Your task to perform on an android device: Go to ESPN.com Image 0: 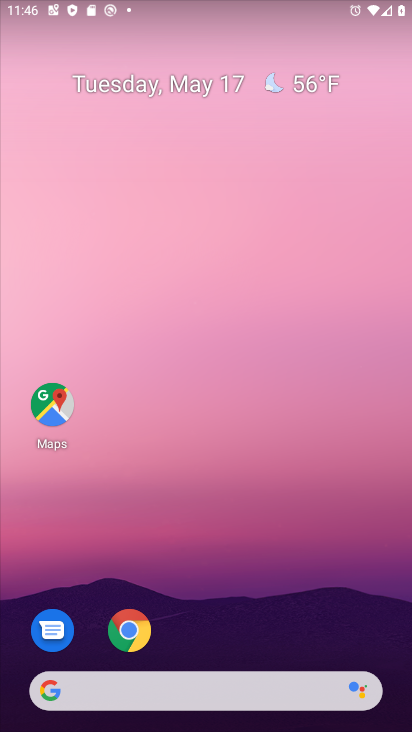
Step 0: drag from (369, 628) to (344, 206)
Your task to perform on an android device: Go to ESPN.com Image 1: 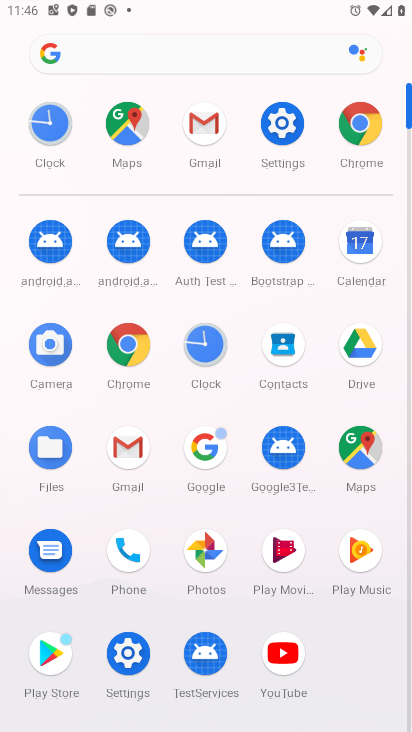
Step 1: click (144, 343)
Your task to perform on an android device: Go to ESPN.com Image 2: 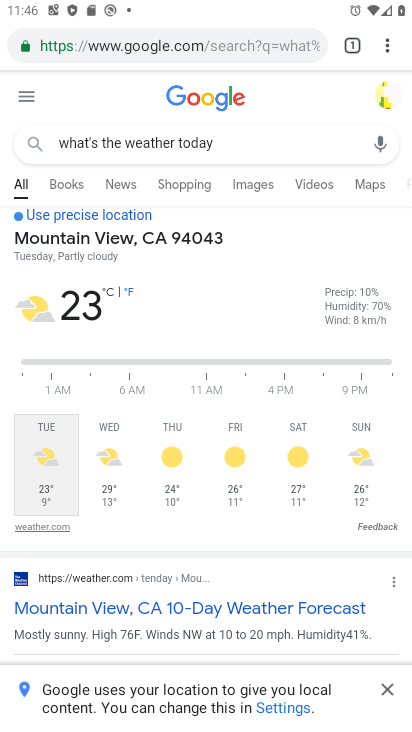
Step 2: click (171, 47)
Your task to perform on an android device: Go to ESPN.com Image 3: 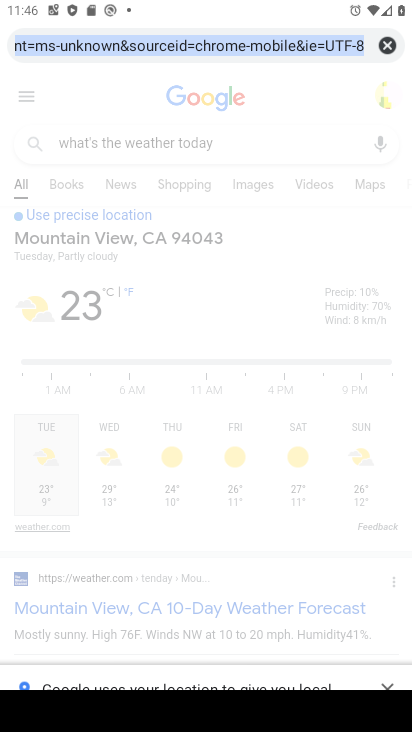
Step 3: click (388, 43)
Your task to perform on an android device: Go to ESPN.com Image 4: 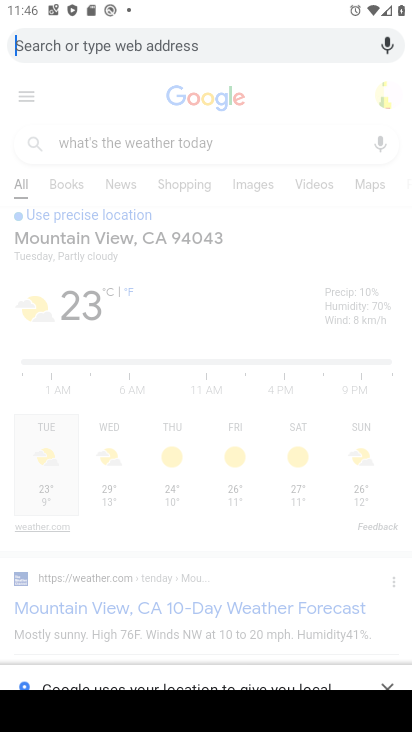
Step 4: type "espn.com"
Your task to perform on an android device: Go to ESPN.com Image 5: 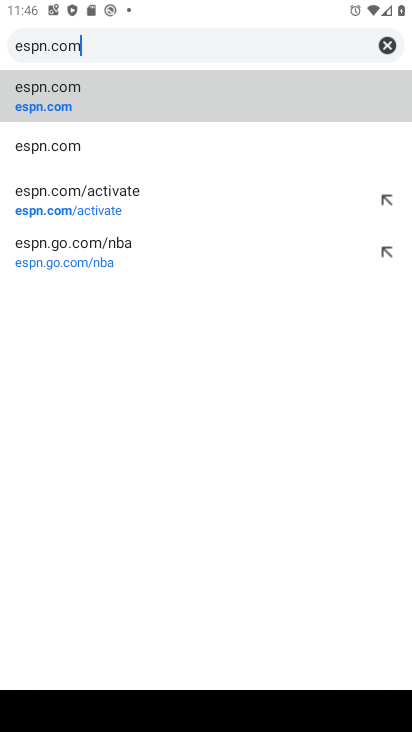
Step 5: click (20, 90)
Your task to perform on an android device: Go to ESPN.com Image 6: 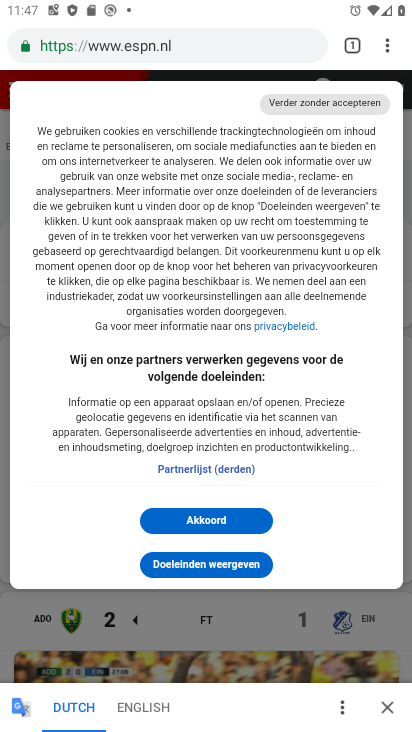
Step 6: task complete